Your task to perform on an android device: move a message to another label in the gmail app Image 0: 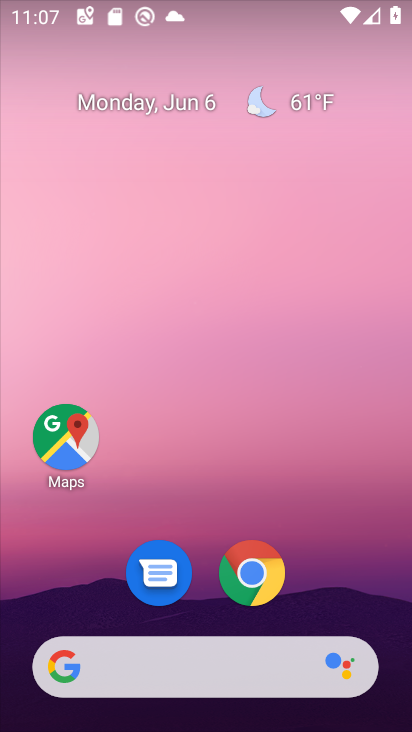
Step 0: drag from (201, 594) to (340, 3)
Your task to perform on an android device: move a message to another label in the gmail app Image 1: 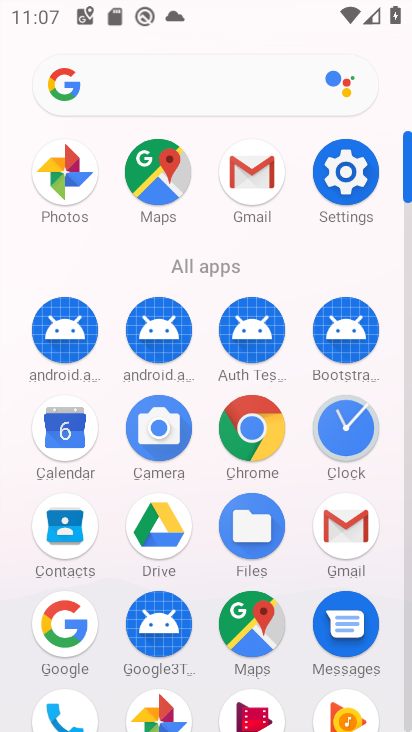
Step 1: click (348, 534)
Your task to perform on an android device: move a message to another label in the gmail app Image 2: 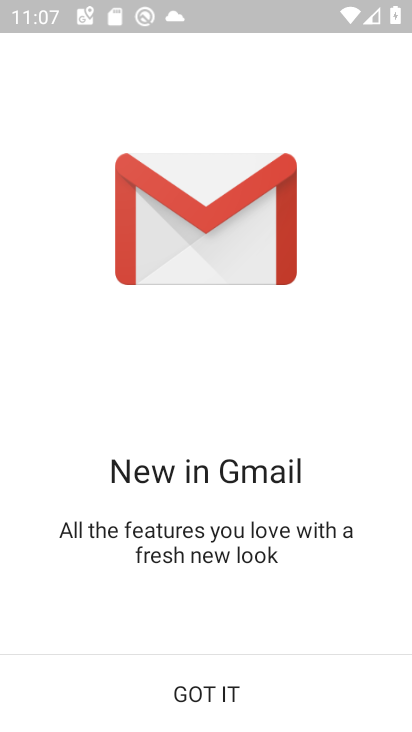
Step 2: click (239, 689)
Your task to perform on an android device: move a message to another label in the gmail app Image 3: 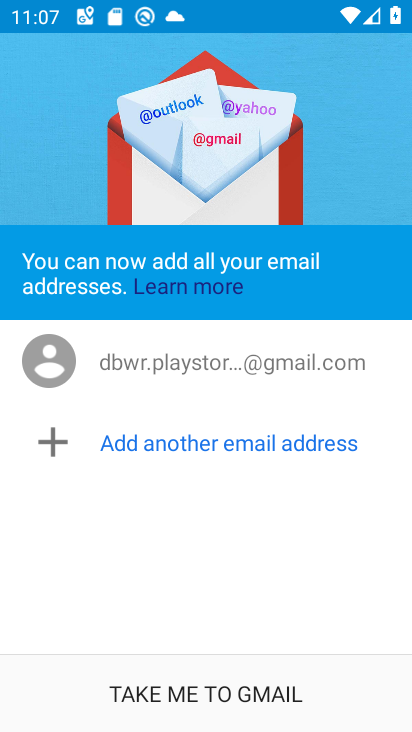
Step 3: click (227, 696)
Your task to perform on an android device: move a message to another label in the gmail app Image 4: 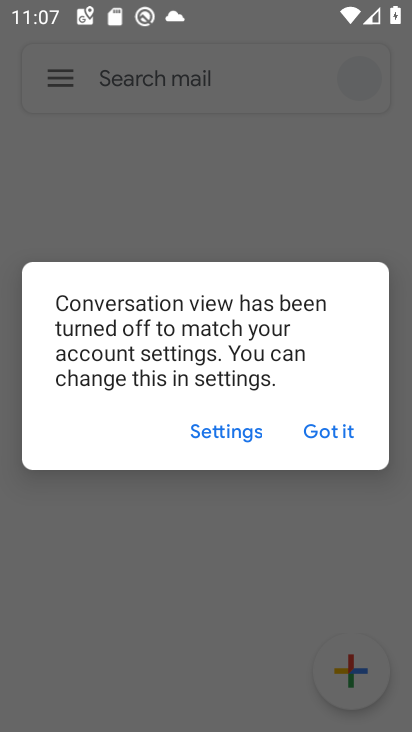
Step 4: click (325, 434)
Your task to perform on an android device: move a message to another label in the gmail app Image 5: 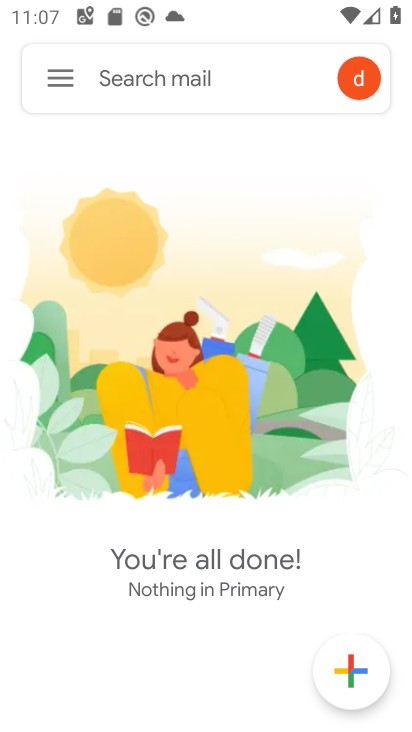
Step 5: click (77, 93)
Your task to perform on an android device: move a message to another label in the gmail app Image 6: 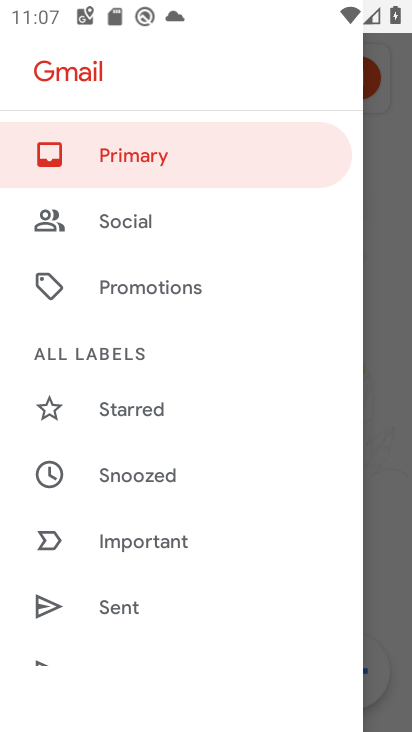
Step 6: drag from (143, 521) to (200, 255)
Your task to perform on an android device: move a message to another label in the gmail app Image 7: 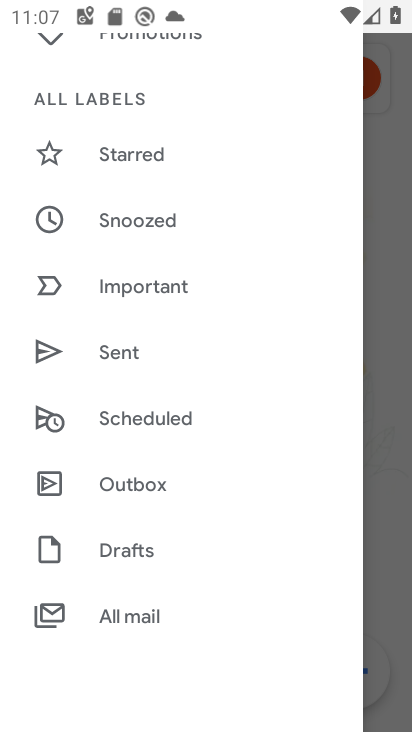
Step 7: click (140, 614)
Your task to perform on an android device: move a message to another label in the gmail app Image 8: 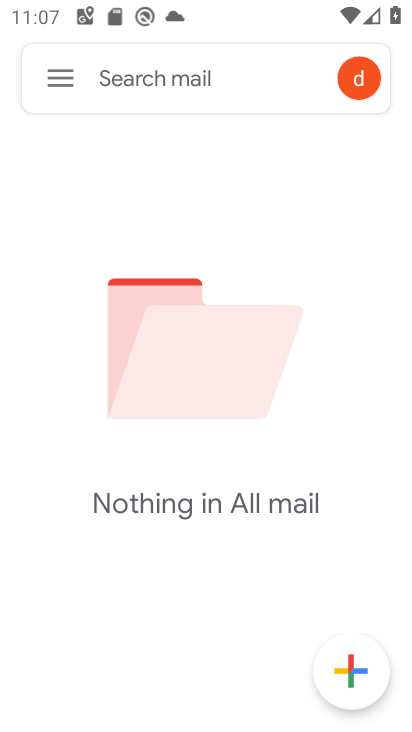
Step 8: task complete